Your task to perform on an android device: Open Chrome and go to settings Image 0: 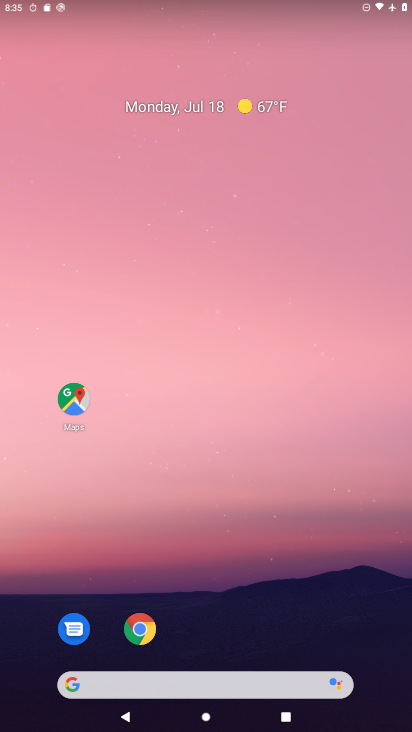
Step 0: click (122, 630)
Your task to perform on an android device: Open Chrome and go to settings Image 1: 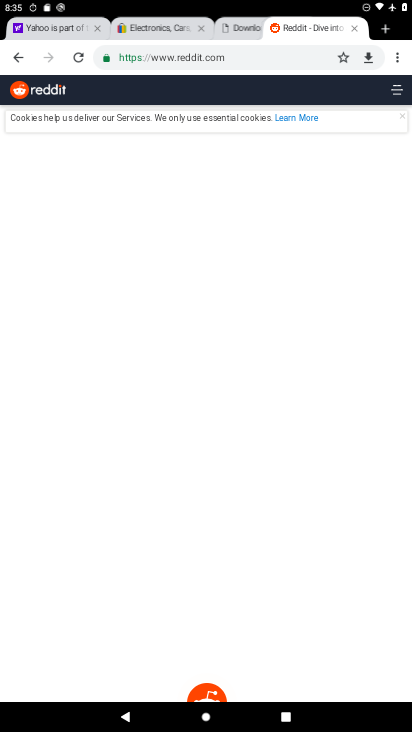
Step 1: task complete